Your task to perform on an android device: Go to accessibility settings Image 0: 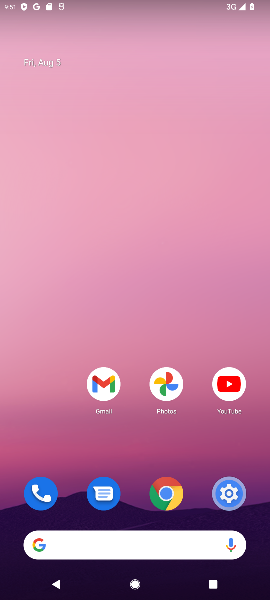
Step 0: press home button
Your task to perform on an android device: Go to accessibility settings Image 1: 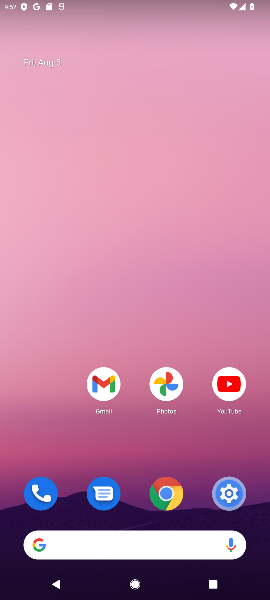
Step 1: drag from (136, 451) to (135, 13)
Your task to perform on an android device: Go to accessibility settings Image 2: 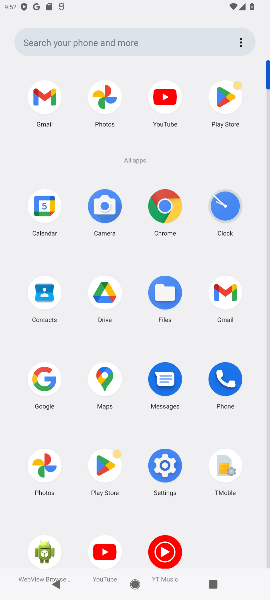
Step 2: click (162, 460)
Your task to perform on an android device: Go to accessibility settings Image 3: 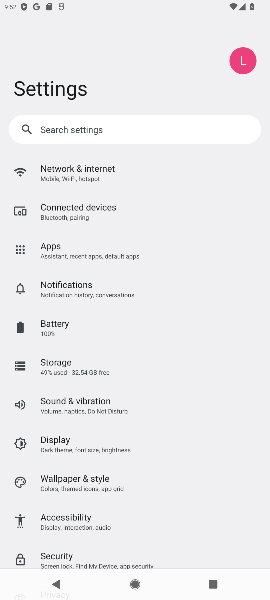
Step 3: drag from (121, 478) to (134, 128)
Your task to perform on an android device: Go to accessibility settings Image 4: 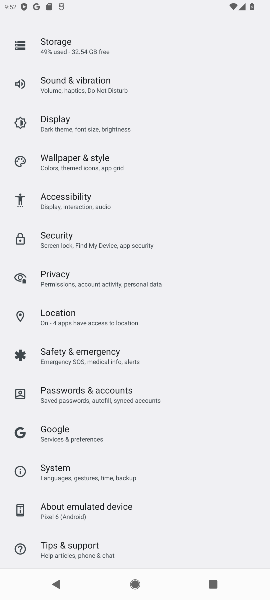
Step 4: click (99, 192)
Your task to perform on an android device: Go to accessibility settings Image 5: 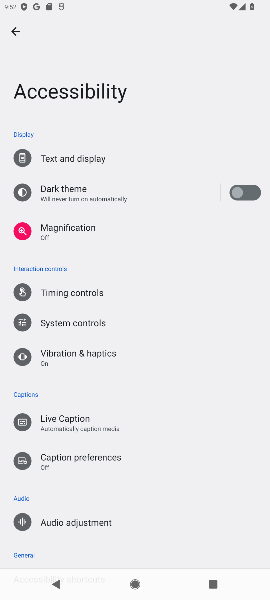
Step 5: task complete